Your task to perform on an android device: Open the Play Movies app and select the watchlist tab. Image 0: 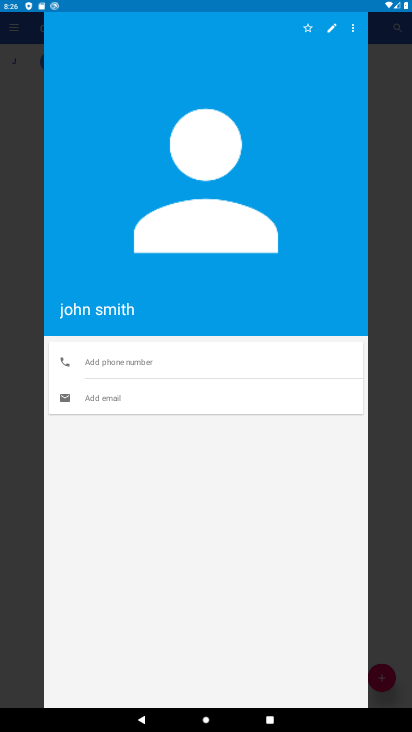
Step 0: press home button
Your task to perform on an android device: Open the Play Movies app and select the watchlist tab. Image 1: 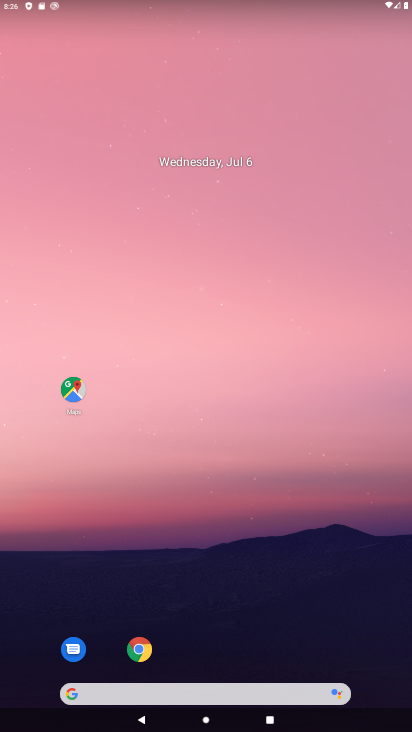
Step 1: drag from (215, 637) to (251, 24)
Your task to perform on an android device: Open the Play Movies app and select the watchlist tab. Image 2: 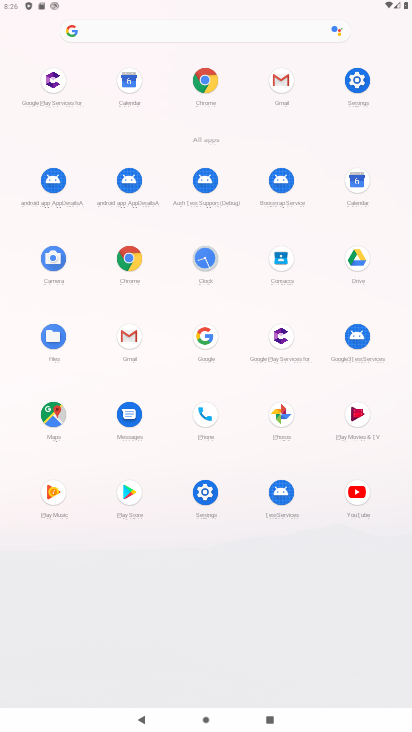
Step 2: click (360, 413)
Your task to perform on an android device: Open the Play Movies app and select the watchlist tab. Image 3: 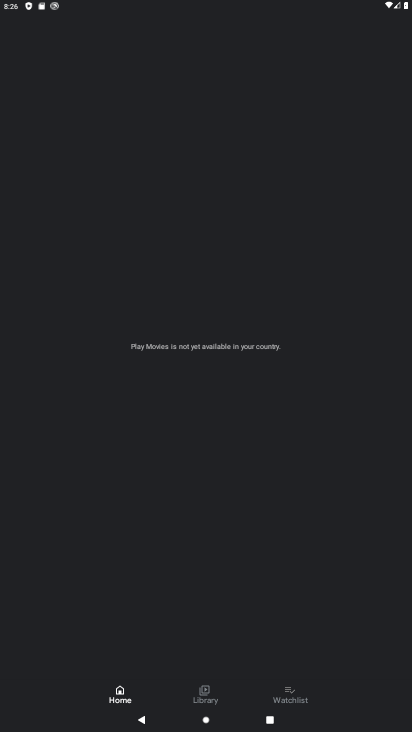
Step 3: click (291, 695)
Your task to perform on an android device: Open the Play Movies app and select the watchlist tab. Image 4: 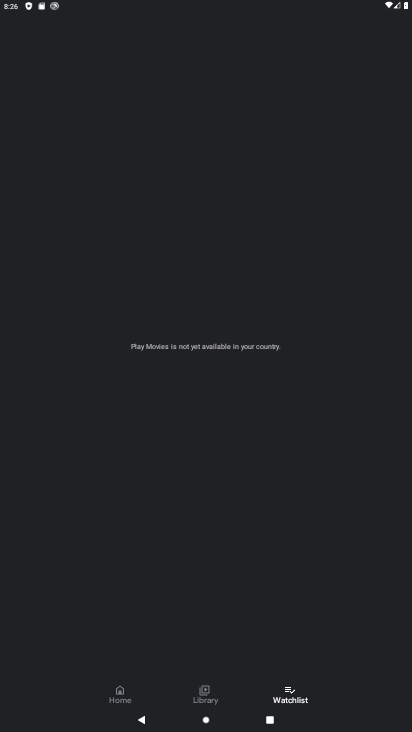
Step 4: task complete